Your task to perform on an android device: Go to accessibility settings Image 0: 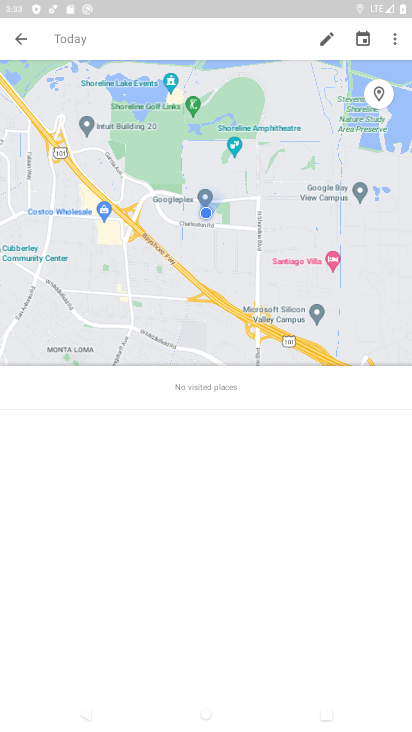
Step 0: press home button
Your task to perform on an android device: Go to accessibility settings Image 1: 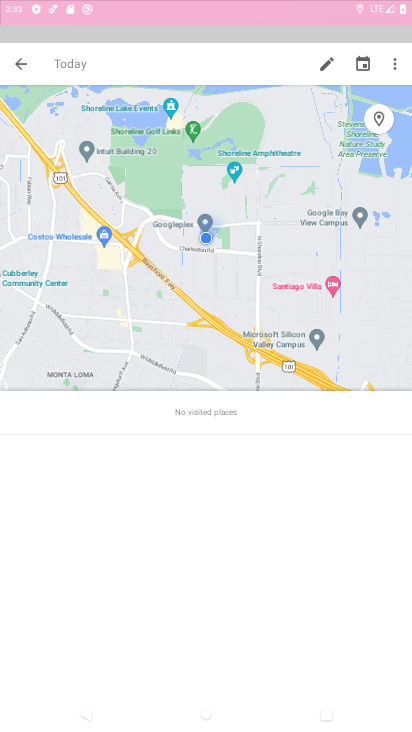
Step 1: press home button
Your task to perform on an android device: Go to accessibility settings Image 2: 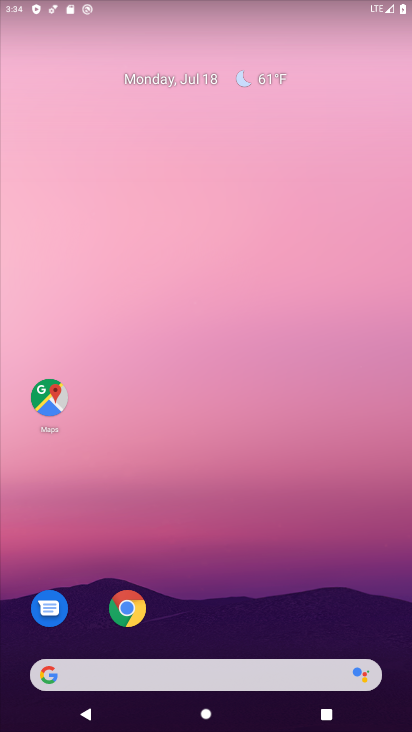
Step 2: drag from (248, 465) to (241, 78)
Your task to perform on an android device: Go to accessibility settings Image 3: 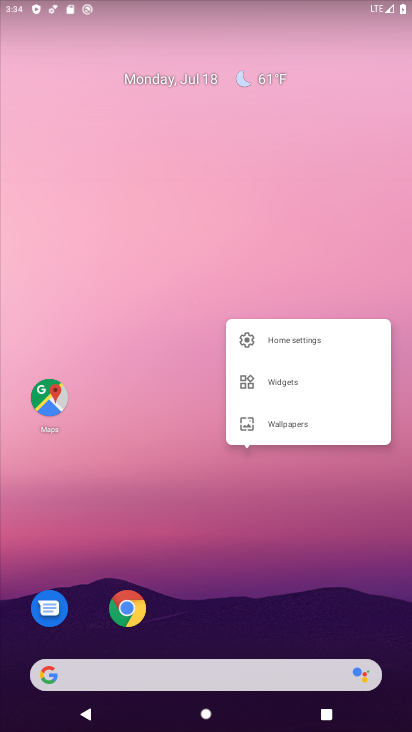
Step 3: click (253, 570)
Your task to perform on an android device: Go to accessibility settings Image 4: 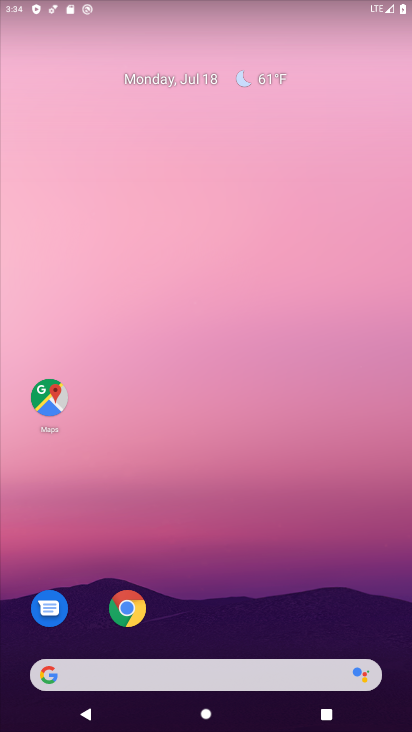
Step 4: drag from (286, 338) to (287, 91)
Your task to perform on an android device: Go to accessibility settings Image 5: 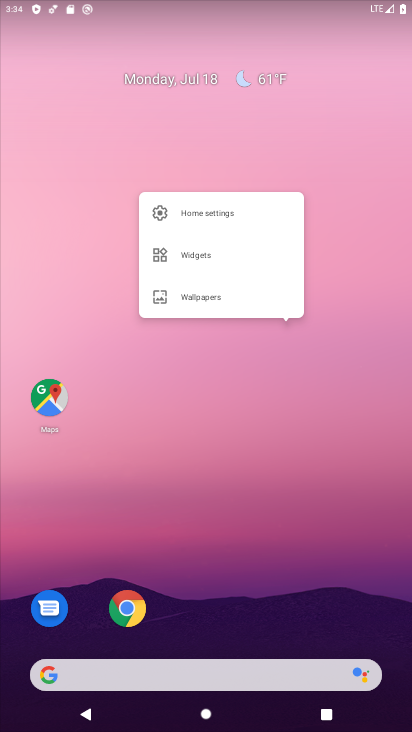
Step 5: click (254, 472)
Your task to perform on an android device: Go to accessibility settings Image 6: 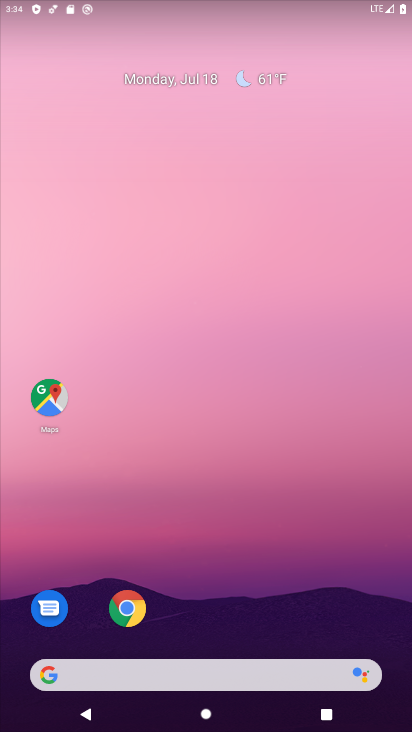
Step 6: click (241, 583)
Your task to perform on an android device: Go to accessibility settings Image 7: 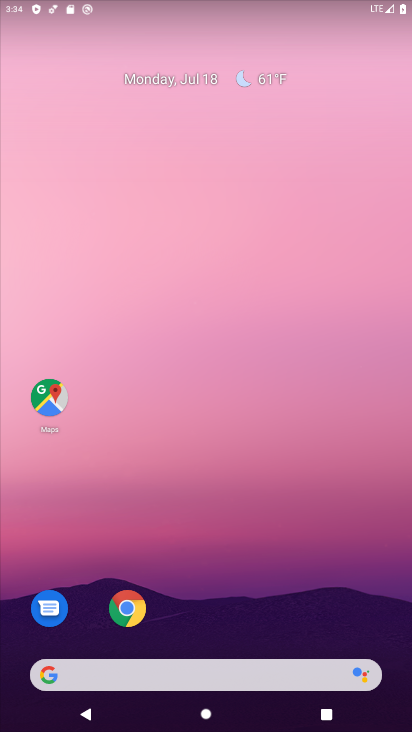
Step 7: drag from (292, 637) to (232, 110)
Your task to perform on an android device: Go to accessibility settings Image 8: 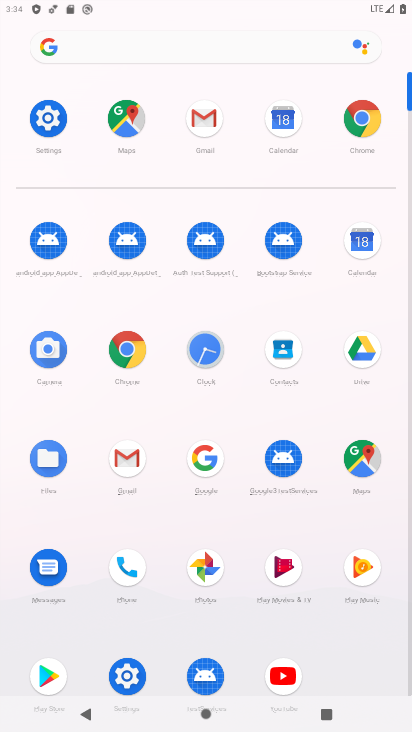
Step 8: click (130, 680)
Your task to perform on an android device: Go to accessibility settings Image 9: 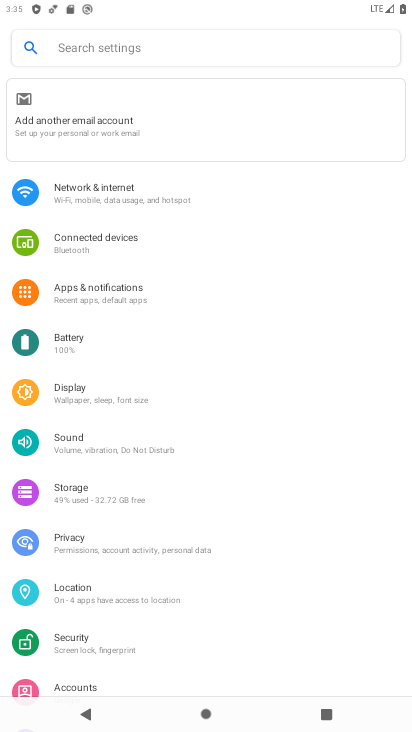
Step 9: drag from (134, 527) to (161, 78)
Your task to perform on an android device: Go to accessibility settings Image 10: 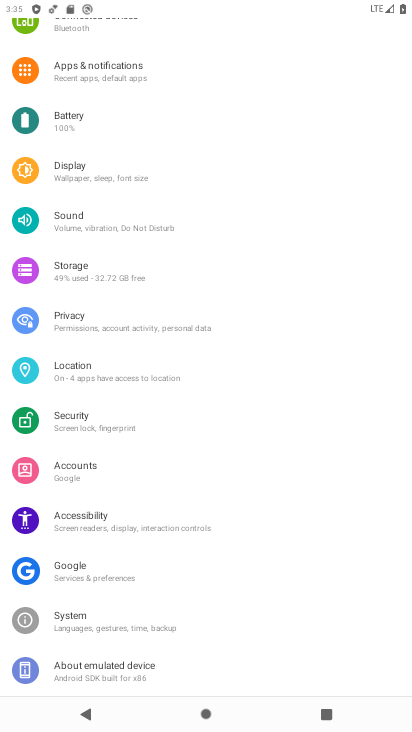
Step 10: click (85, 513)
Your task to perform on an android device: Go to accessibility settings Image 11: 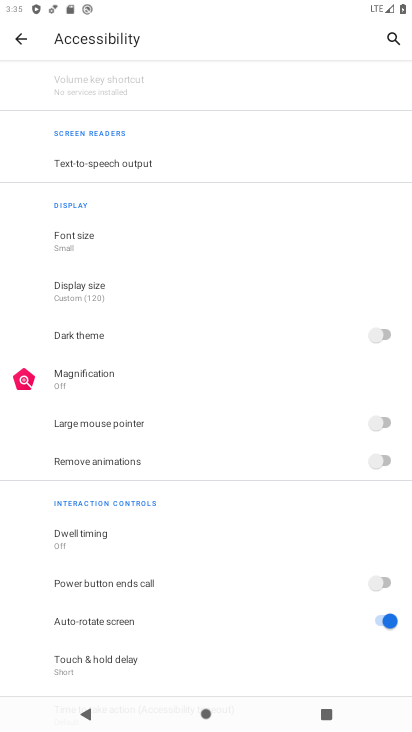
Step 11: task complete